Your task to perform on an android device: Open Wikipedia Image 0: 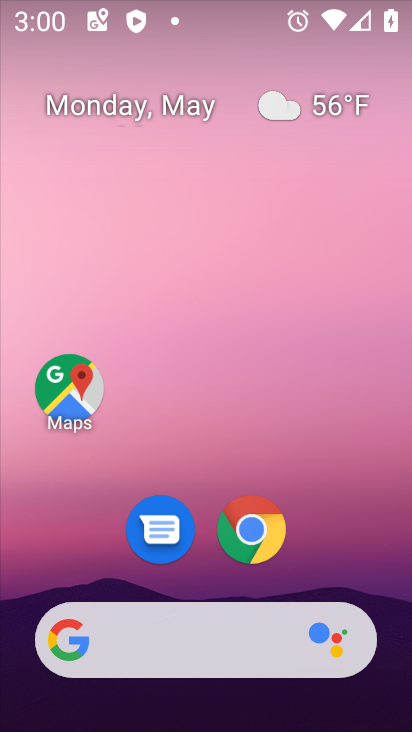
Step 0: click (258, 530)
Your task to perform on an android device: Open Wikipedia Image 1: 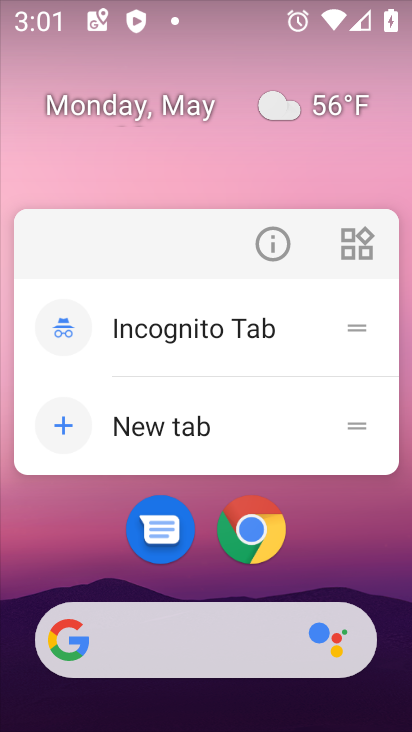
Step 1: click (253, 528)
Your task to perform on an android device: Open Wikipedia Image 2: 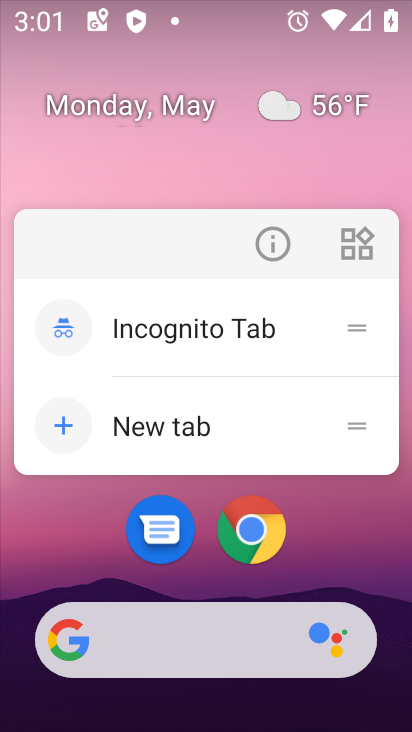
Step 2: click (253, 528)
Your task to perform on an android device: Open Wikipedia Image 3: 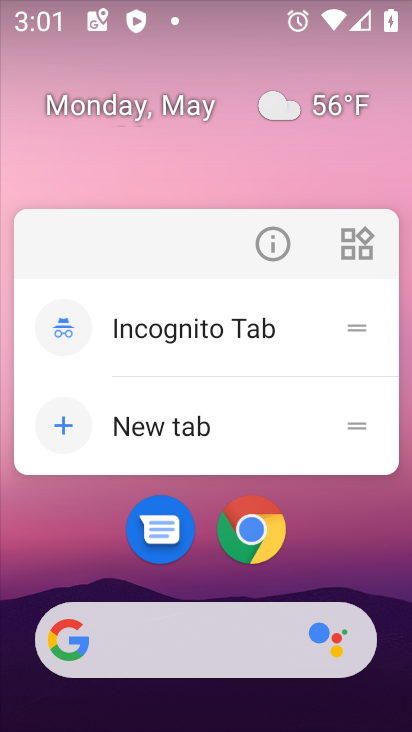
Step 3: click (254, 526)
Your task to perform on an android device: Open Wikipedia Image 4: 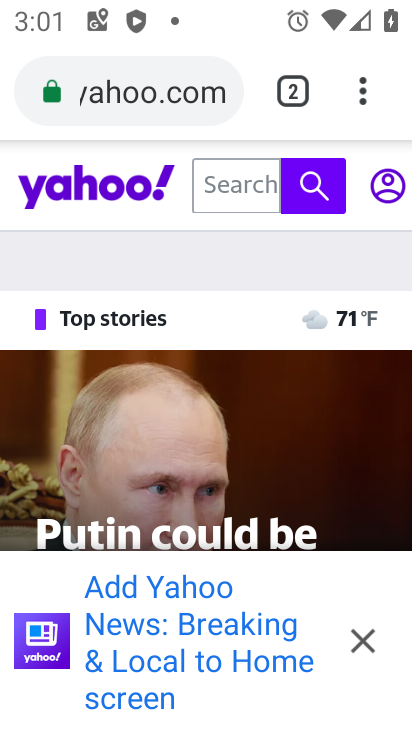
Step 4: click (200, 105)
Your task to perform on an android device: Open Wikipedia Image 5: 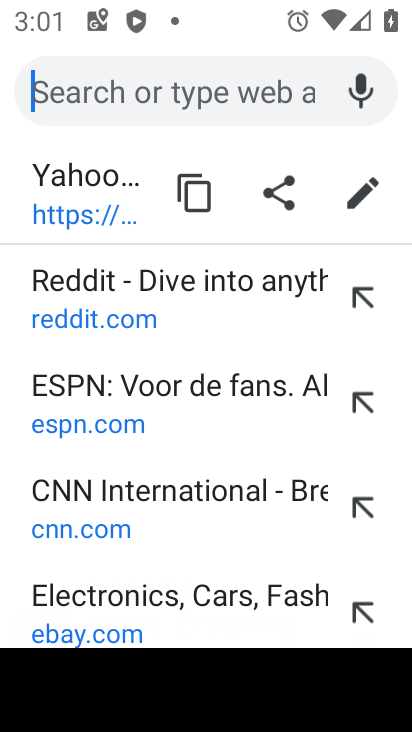
Step 5: type "wikipedia"
Your task to perform on an android device: Open Wikipedia Image 6: 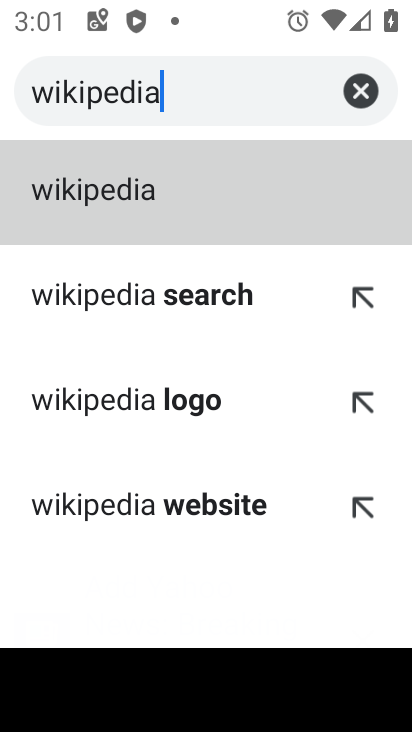
Step 6: click (110, 193)
Your task to perform on an android device: Open Wikipedia Image 7: 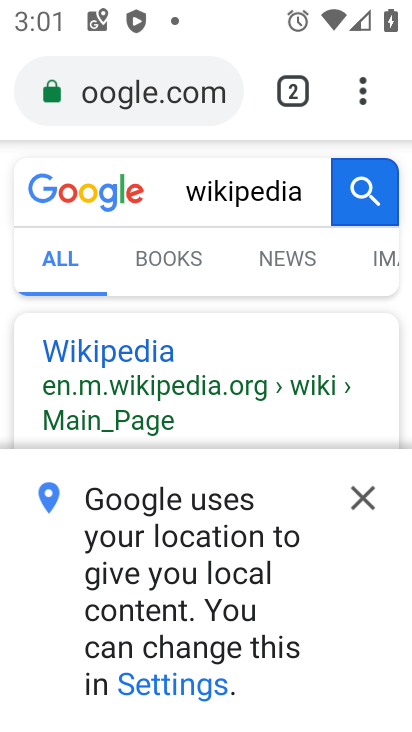
Step 7: click (89, 352)
Your task to perform on an android device: Open Wikipedia Image 8: 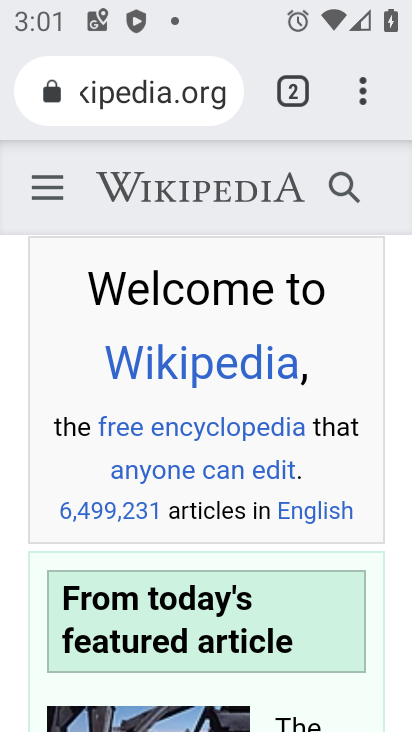
Step 8: task complete